Your task to perform on an android device: What's the weather going to be tomorrow? Image 0: 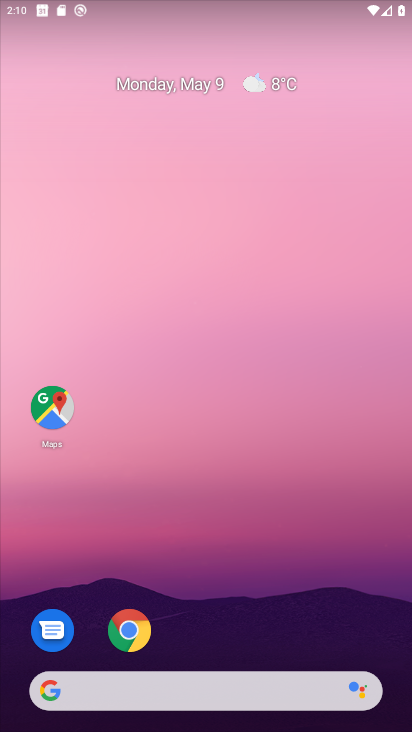
Step 0: click (297, 81)
Your task to perform on an android device: What's the weather going to be tomorrow? Image 1: 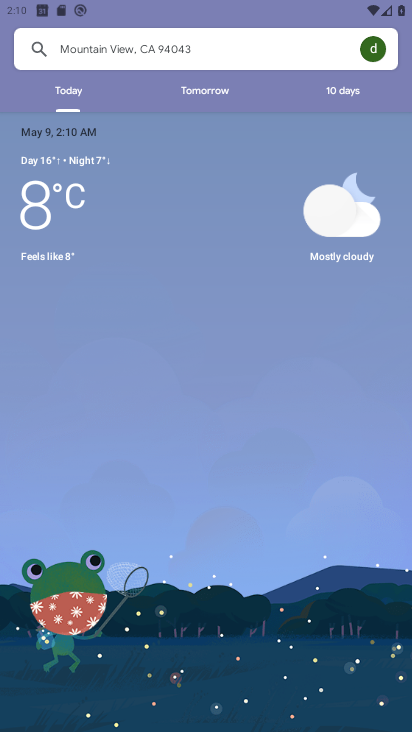
Step 1: click (231, 85)
Your task to perform on an android device: What's the weather going to be tomorrow? Image 2: 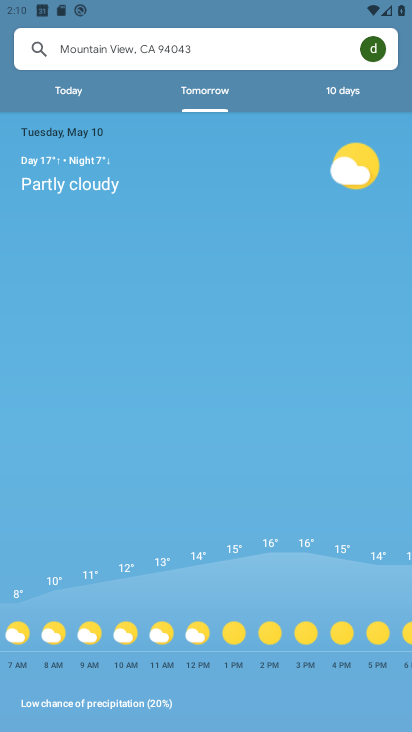
Step 2: task complete